Your task to perform on an android device: set an alarm Image 0: 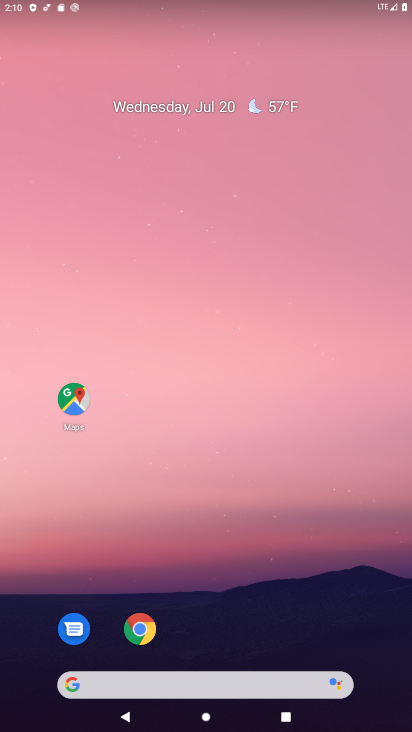
Step 0: drag from (381, 662) to (355, 73)
Your task to perform on an android device: set an alarm Image 1: 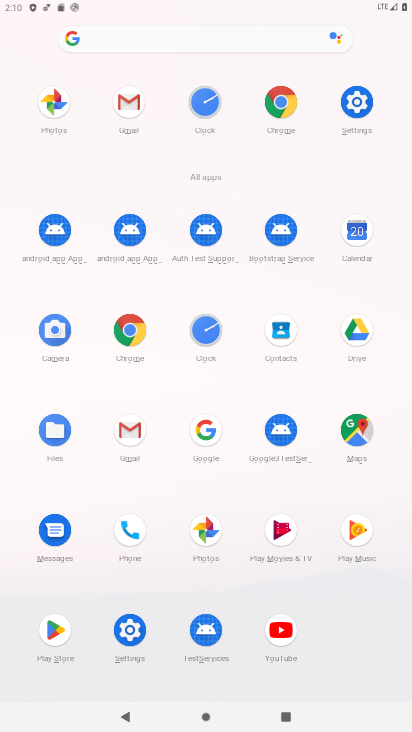
Step 1: click (202, 328)
Your task to perform on an android device: set an alarm Image 2: 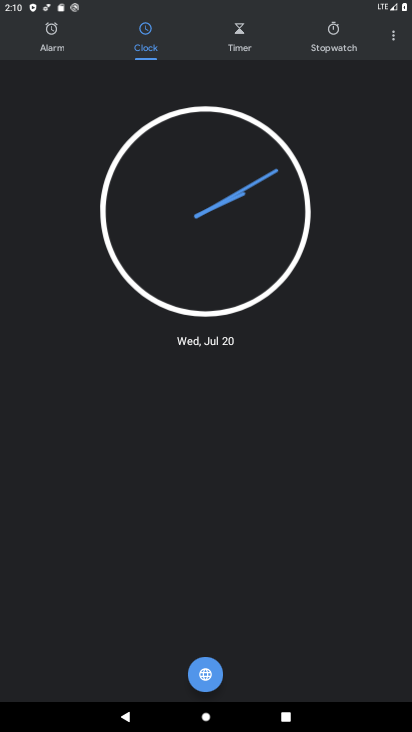
Step 2: click (59, 41)
Your task to perform on an android device: set an alarm Image 3: 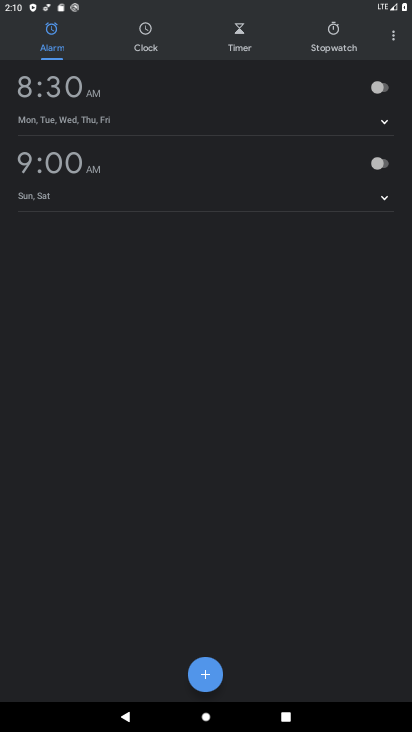
Step 3: click (49, 97)
Your task to perform on an android device: set an alarm Image 4: 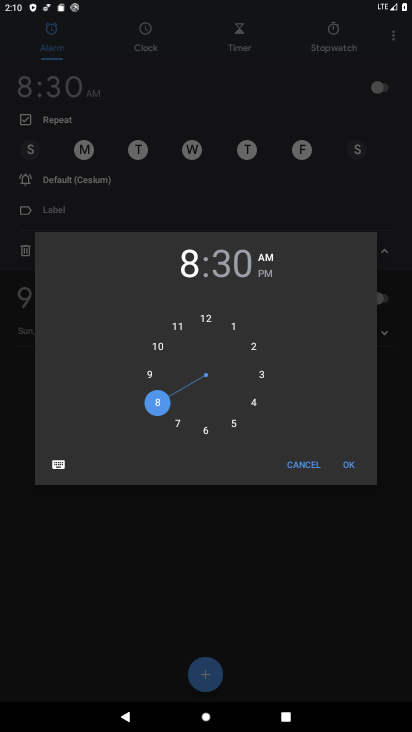
Step 4: click (205, 430)
Your task to perform on an android device: set an alarm Image 5: 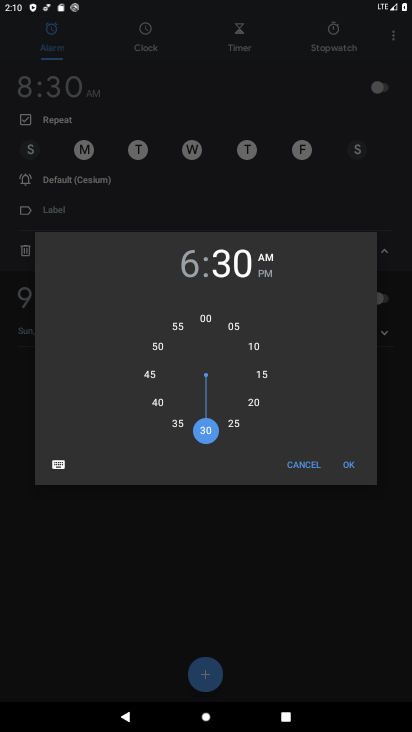
Step 5: click (261, 372)
Your task to perform on an android device: set an alarm Image 6: 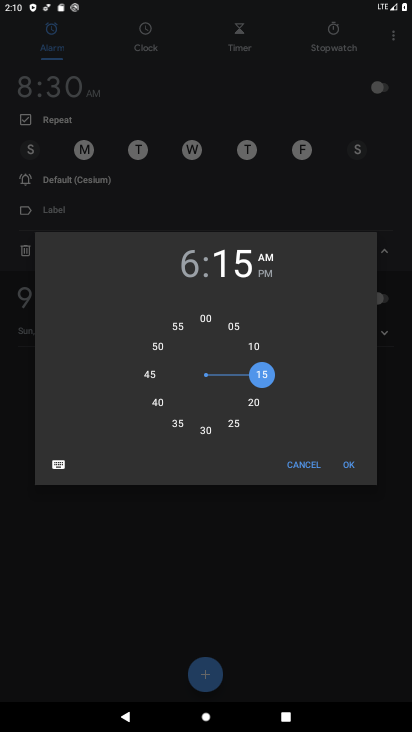
Step 6: click (354, 471)
Your task to perform on an android device: set an alarm Image 7: 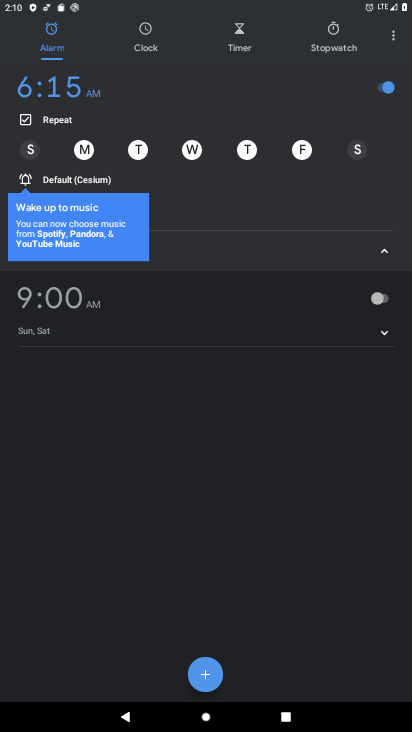
Step 7: click (358, 149)
Your task to perform on an android device: set an alarm Image 8: 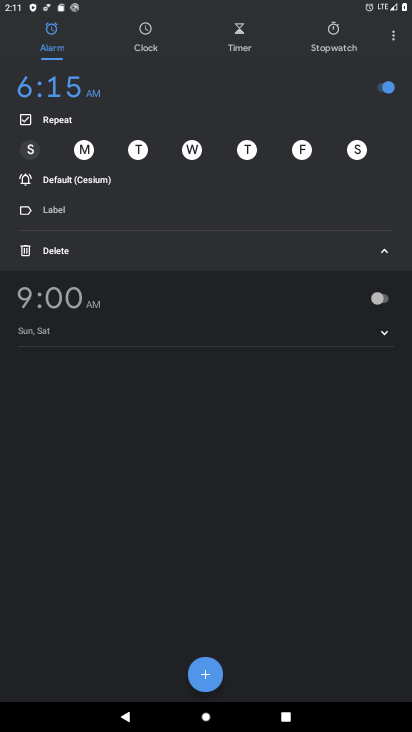
Step 8: click (384, 250)
Your task to perform on an android device: set an alarm Image 9: 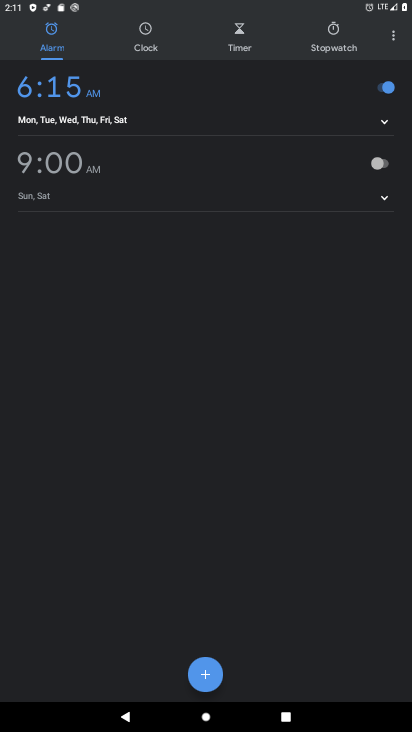
Step 9: task complete